Your task to perform on an android device: Open privacy settings Image 0: 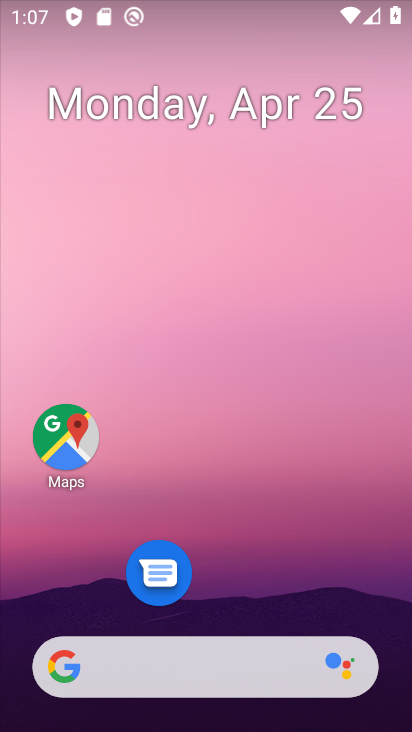
Step 0: drag from (221, 461) to (335, 10)
Your task to perform on an android device: Open privacy settings Image 1: 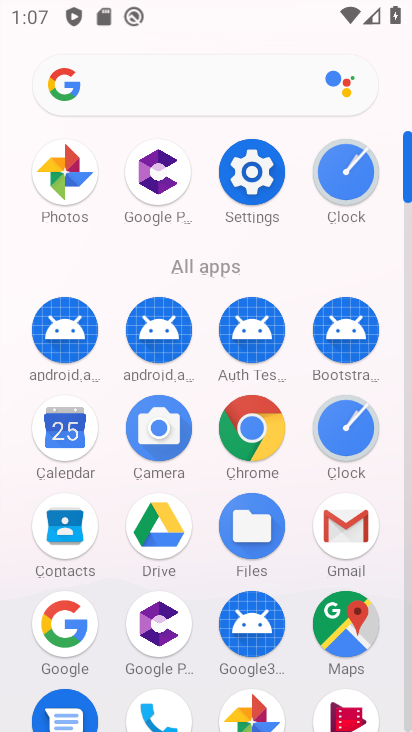
Step 1: click (251, 168)
Your task to perform on an android device: Open privacy settings Image 2: 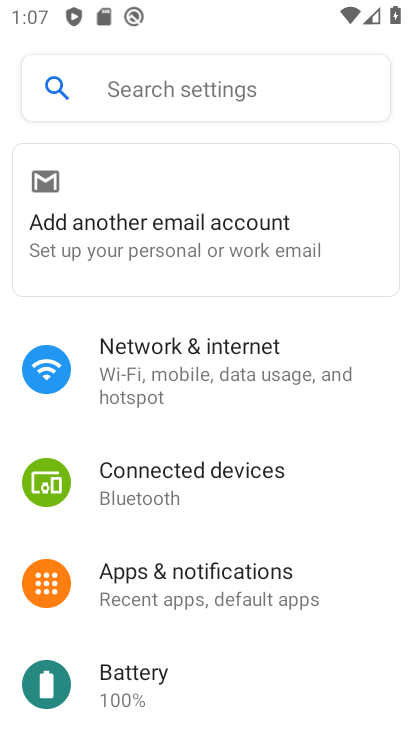
Step 2: drag from (170, 686) to (259, 206)
Your task to perform on an android device: Open privacy settings Image 3: 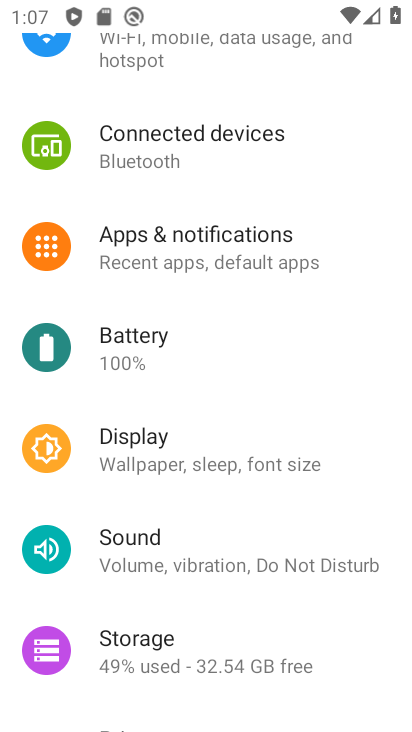
Step 3: drag from (206, 545) to (298, 213)
Your task to perform on an android device: Open privacy settings Image 4: 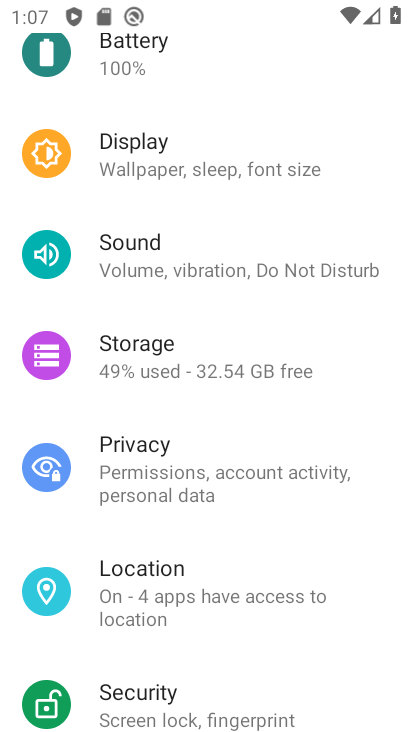
Step 4: click (222, 467)
Your task to perform on an android device: Open privacy settings Image 5: 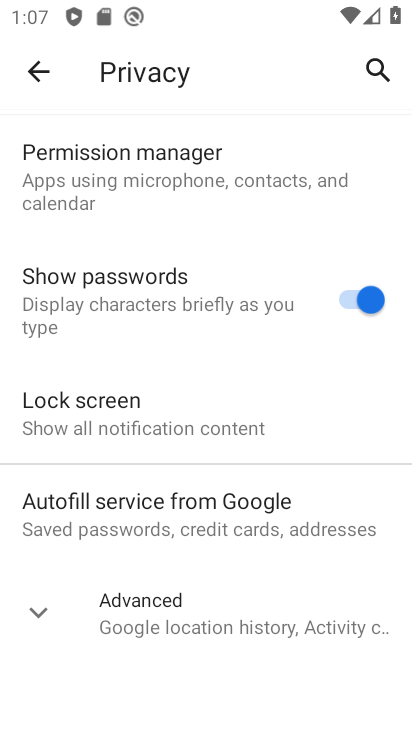
Step 5: task complete